Your task to perform on an android device: check the backup settings in the google photos Image 0: 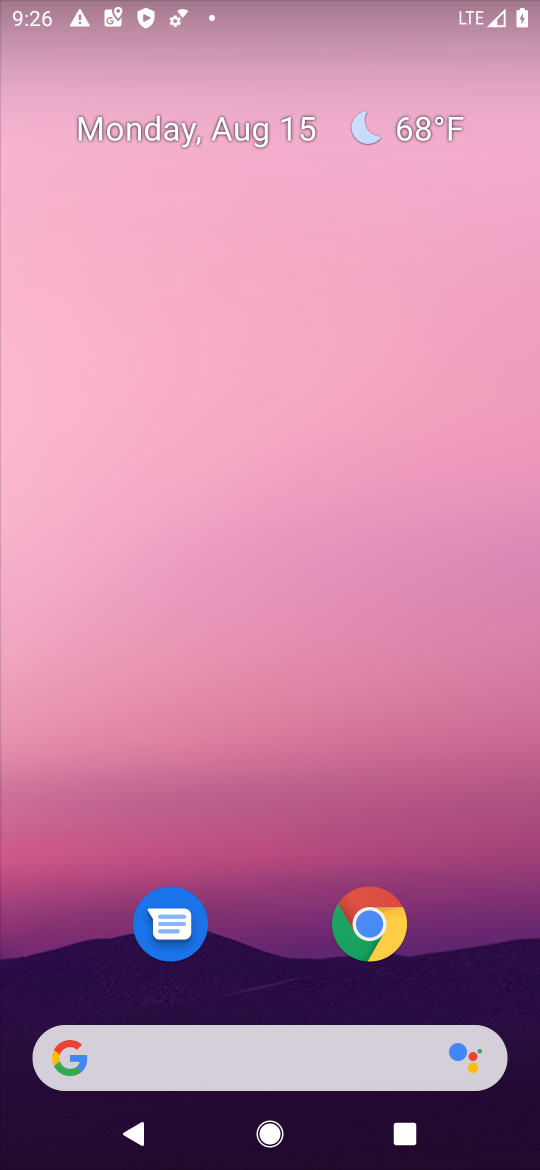
Step 0: drag from (501, 982) to (447, 207)
Your task to perform on an android device: check the backup settings in the google photos Image 1: 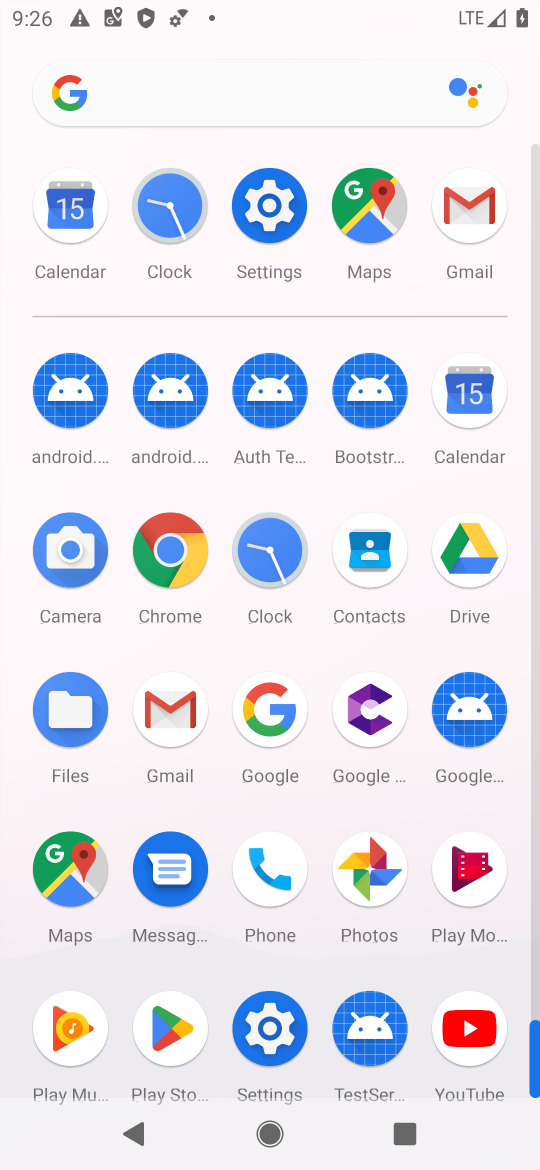
Step 1: click (373, 868)
Your task to perform on an android device: check the backup settings in the google photos Image 2: 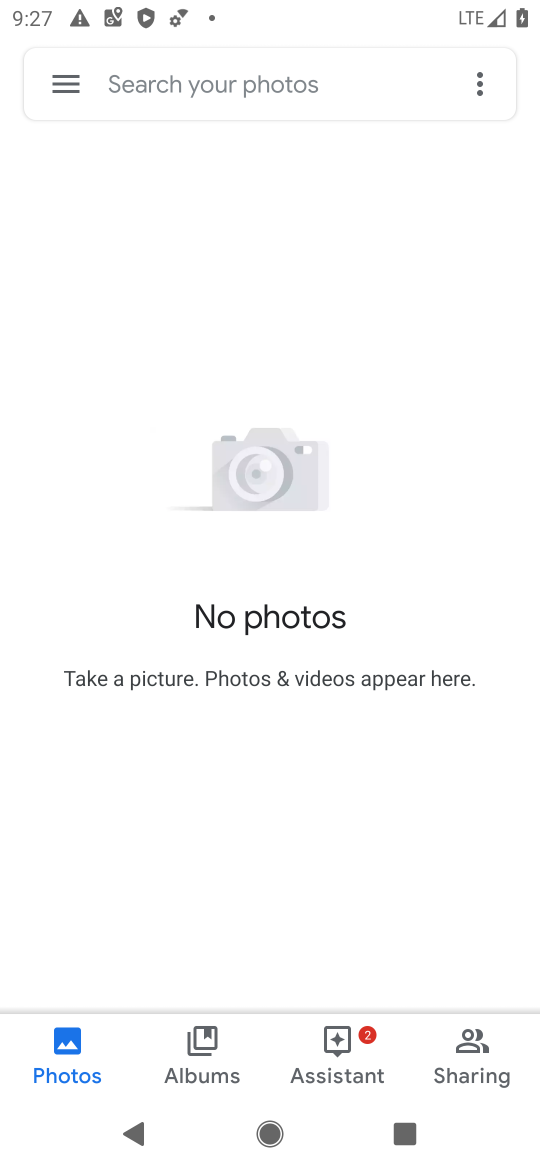
Step 2: click (58, 85)
Your task to perform on an android device: check the backup settings in the google photos Image 3: 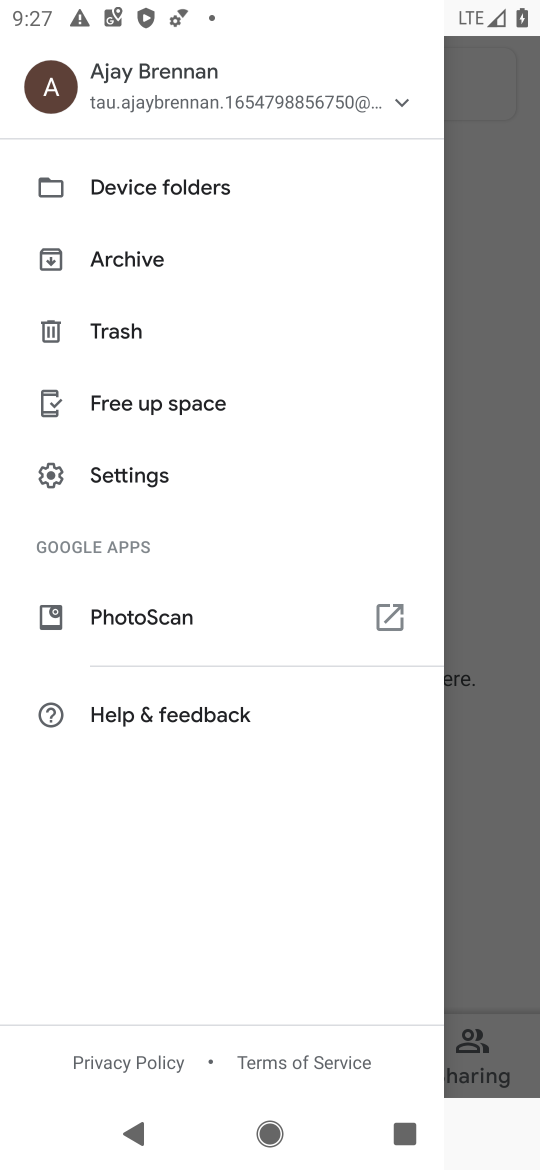
Step 3: click (122, 481)
Your task to perform on an android device: check the backup settings in the google photos Image 4: 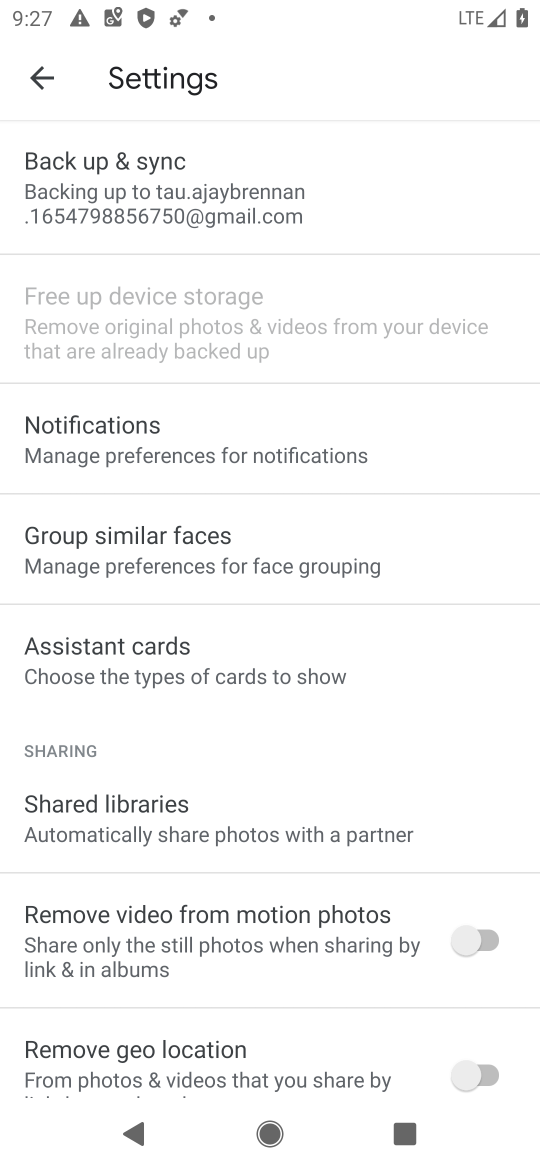
Step 4: click (129, 172)
Your task to perform on an android device: check the backup settings in the google photos Image 5: 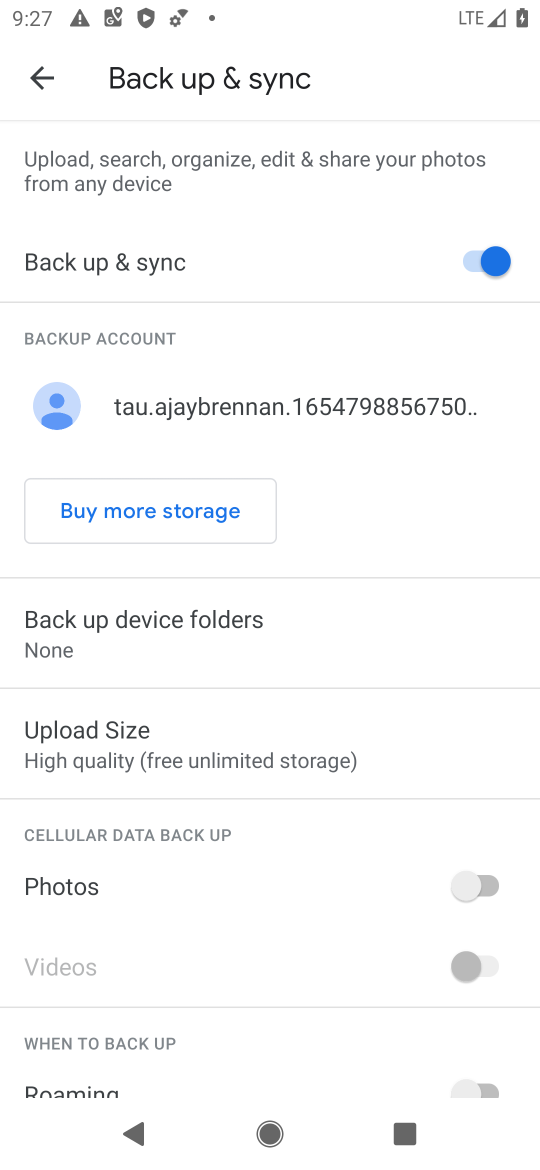
Step 5: task complete